Your task to perform on an android device: install app "DoorDash - Food Delivery" Image 0: 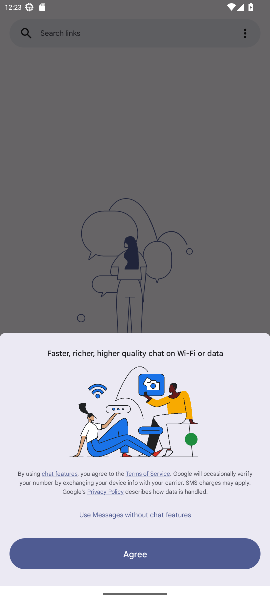
Step 0: press home button
Your task to perform on an android device: install app "DoorDash - Food Delivery" Image 1: 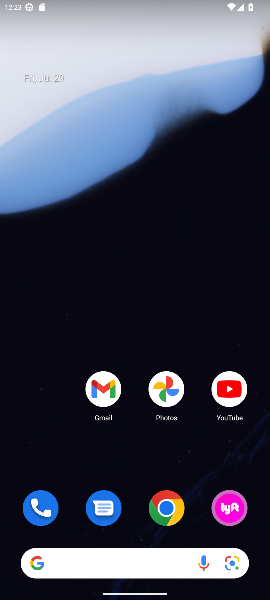
Step 1: drag from (146, 549) to (209, 23)
Your task to perform on an android device: install app "DoorDash - Food Delivery" Image 2: 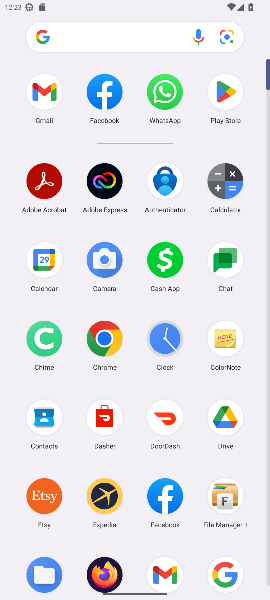
Step 2: click (222, 93)
Your task to perform on an android device: install app "DoorDash - Food Delivery" Image 3: 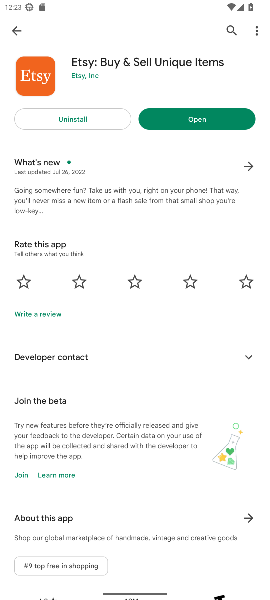
Step 3: click (230, 28)
Your task to perform on an android device: install app "DoorDash - Food Delivery" Image 4: 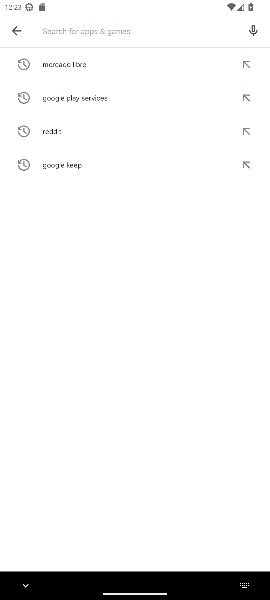
Step 4: type "doordash- food delivery"
Your task to perform on an android device: install app "DoorDash - Food Delivery" Image 5: 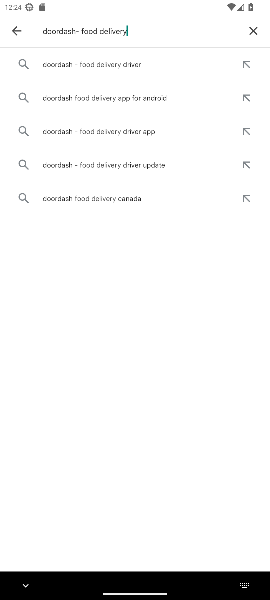
Step 5: click (97, 58)
Your task to perform on an android device: install app "DoorDash - Food Delivery" Image 6: 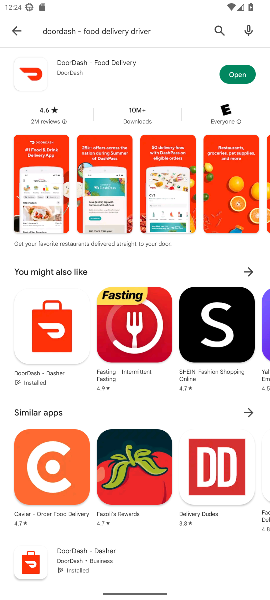
Step 6: task complete